Your task to perform on an android device: Open Youtube and go to "Your channel" Image 0: 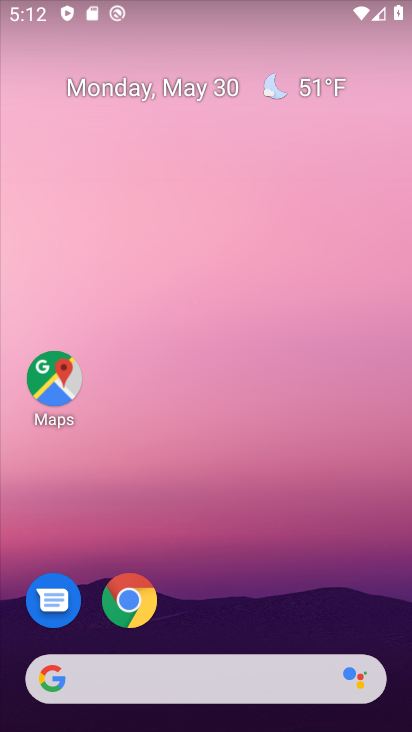
Step 0: drag from (292, 703) to (218, 108)
Your task to perform on an android device: Open Youtube and go to "Your channel" Image 1: 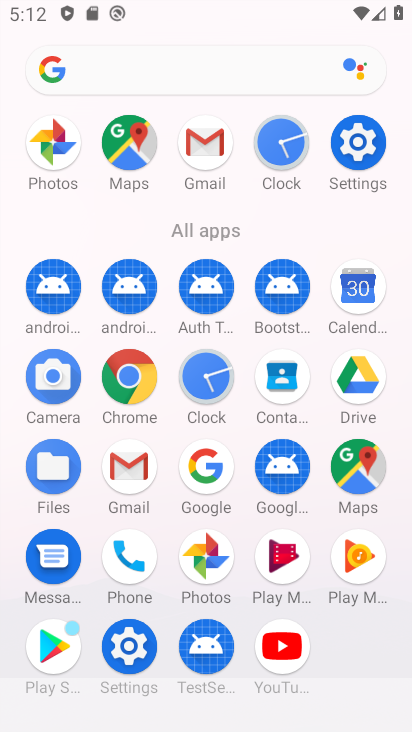
Step 1: click (284, 648)
Your task to perform on an android device: Open Youtube and go to "Your channel" Image 2: 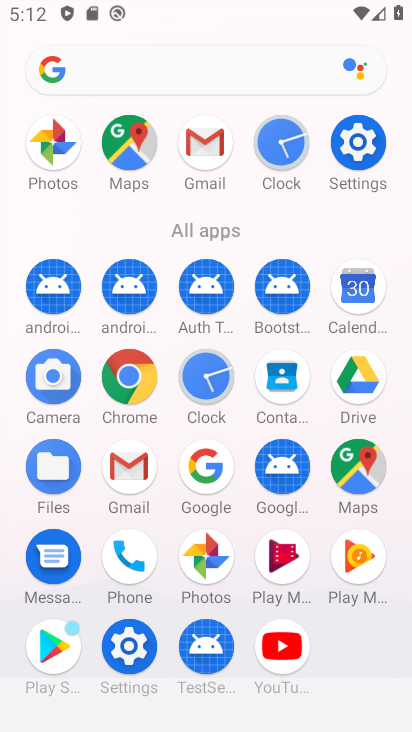
Step 2: click (284, 649)
Your task to perform on an android device: Open Youtube and go to "Your channel" Image 3: 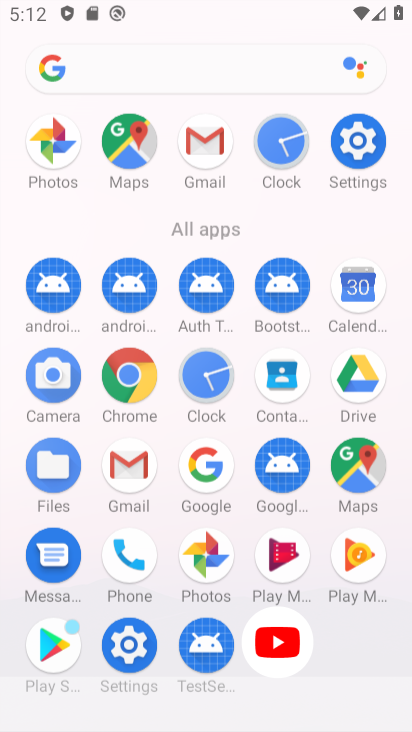
Step 3: click (284, 649)
Your task to perform on an android device: Open Youtube and go to "Your channel" Image 4: 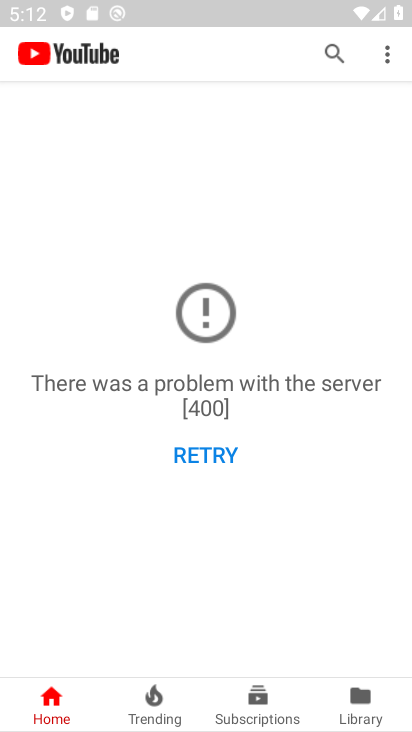
Step 4: task complete